Your task to perform on an android device: What's the news in Jamaica? Image 0: 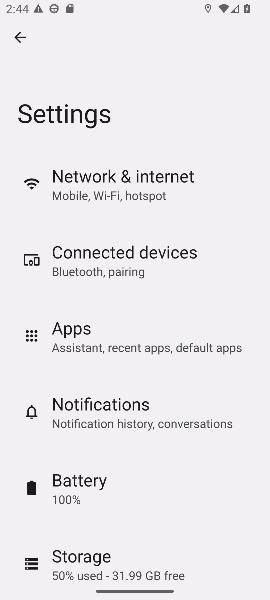
Step 0: press home button
Your task to perform on an android device: What's the news in Jamaica? Image 1: 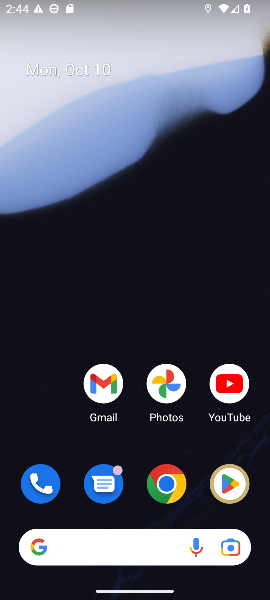
Step 1: click (162, 484)
Your task to perform on an android device: What's the news in Jamaica? Image 2: 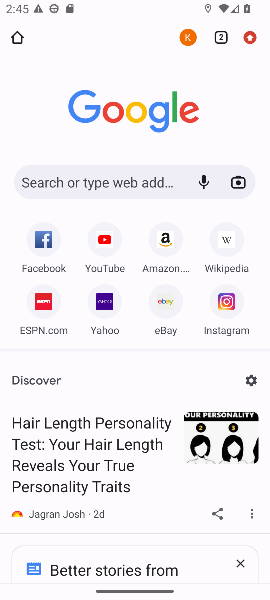
Step 2: click (157, 192)
Your task to perform on an android device: What's the news in Jamaica? Image 3: 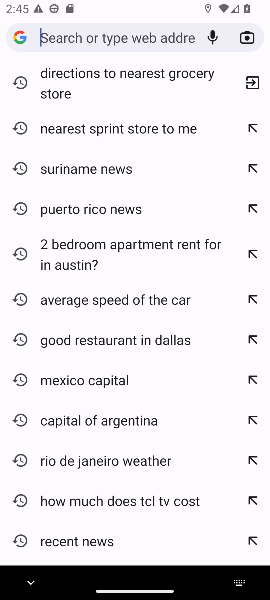
Step 3: type "news in jamaica"
Your task to perform on an android device: What's the news in Jamaica? Image 4: 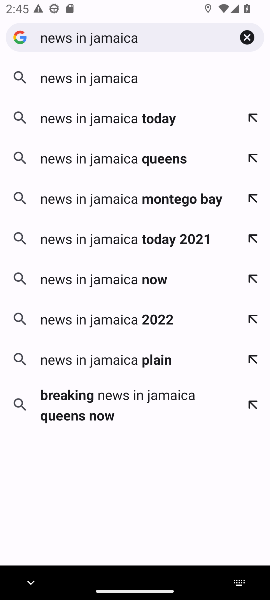
Step 4: click (132, 84)
Your task to perform on an android device: What's the news in Jamaica? Image 5: 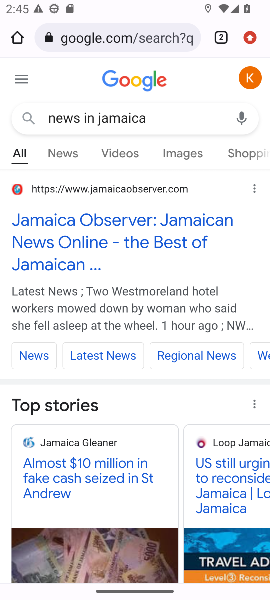
Step 5: click (74, 153)
Your task to perform on an android device: What's the news in Jamaica? Image 6: 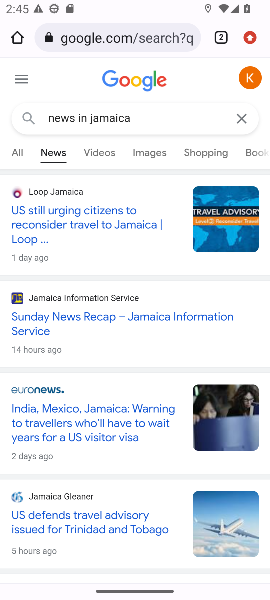
Step 6: task complete